Your task to perform on an android device: Open eBay Image 0: 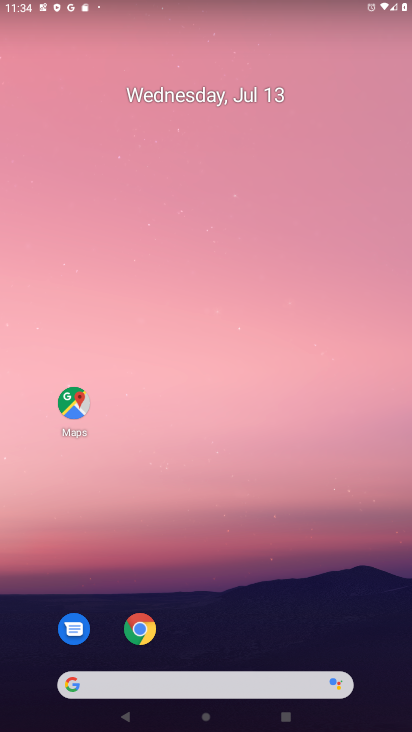
Step 0: click (287, 621)
Your task to perform on an android device: Open eBay Image 1: 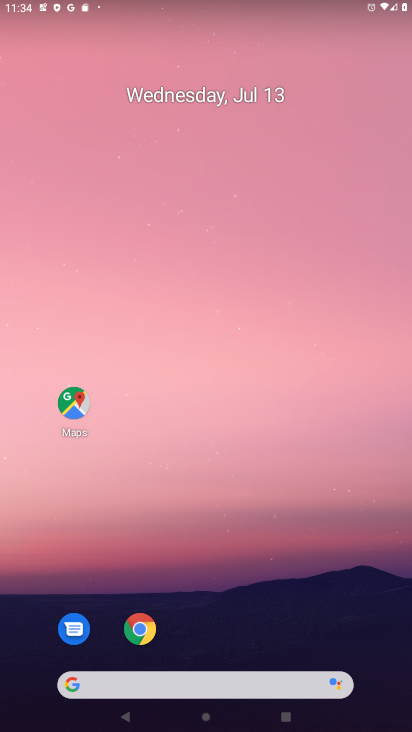
Step 1: drag from (287, 621) to (346, 217)
Your task to perform on an android device: Open eBay Image 2: 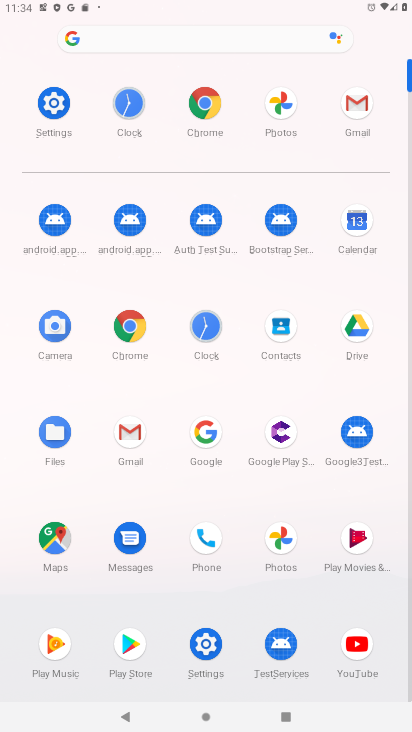
Step 2: click (213, 125)
Your task to perform on an android device: Open eBay Image 3: 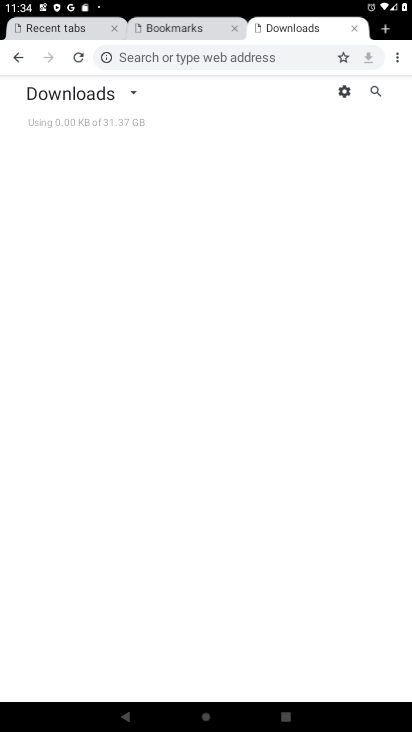
Step 3: click (298, 58)
Your task to perform on an android device: Open eBay Image 4: 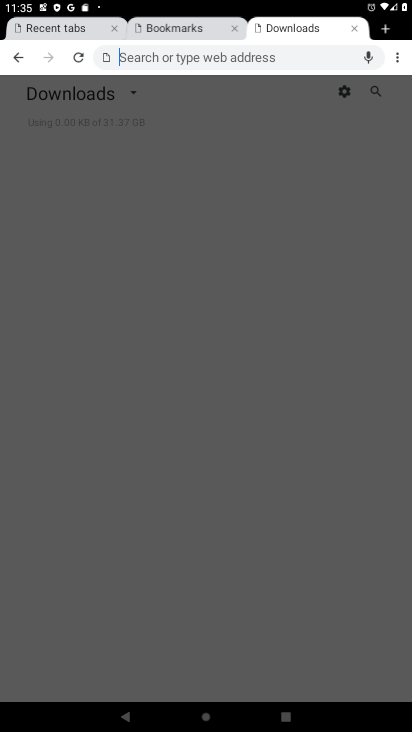
Step 4: type "ebay.com"
Your task to perform on an android device: Open eBay Image 5: 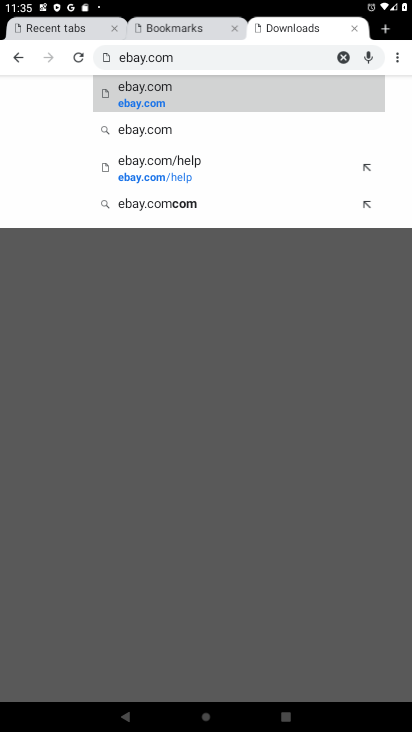
Step 5: click (193, 81)
Your task to perform on an android device: Open eBay Image 6: 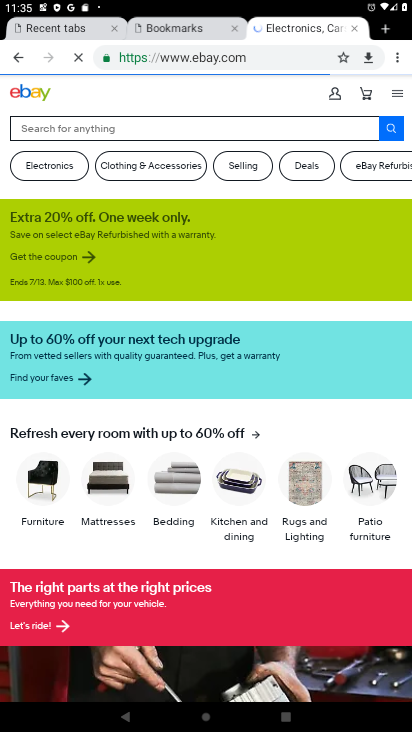
Step 6: task complete